Your task to perform on an android device: Go to Maps Image 0: 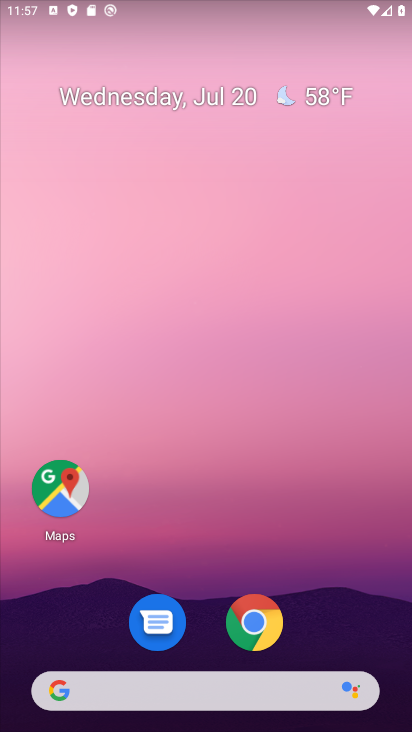
Step 0: click (47, 500)
Your task to perform on an android device: Go to Maps Image 1: 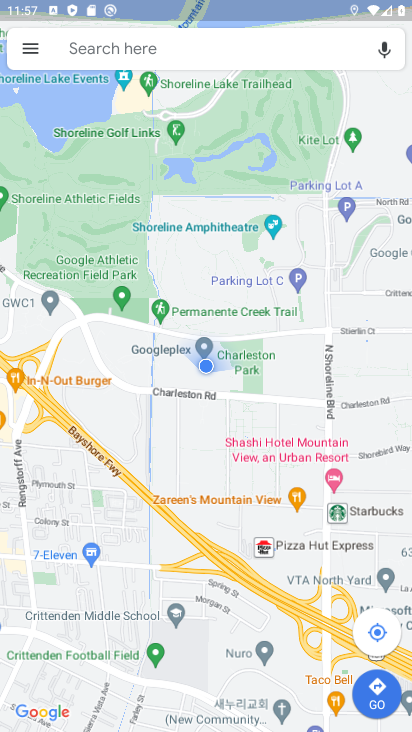
Step 1: task complete